Your task to perform on an android device: Open settings Image 0: 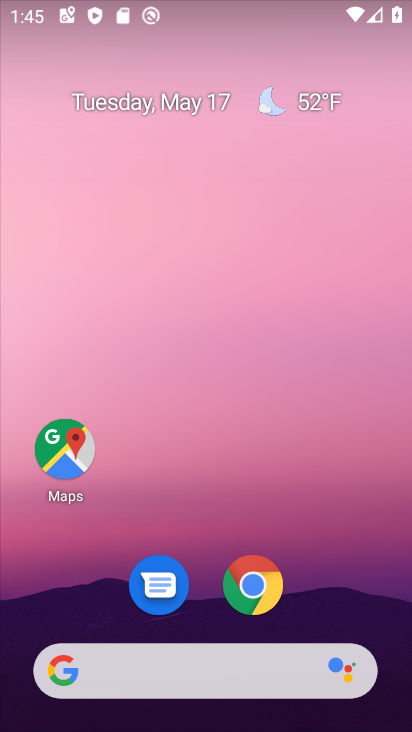
Step 0: drag from (286, 497) to (261, 51)
Your task to perform on an android device: Open settings Image 1: 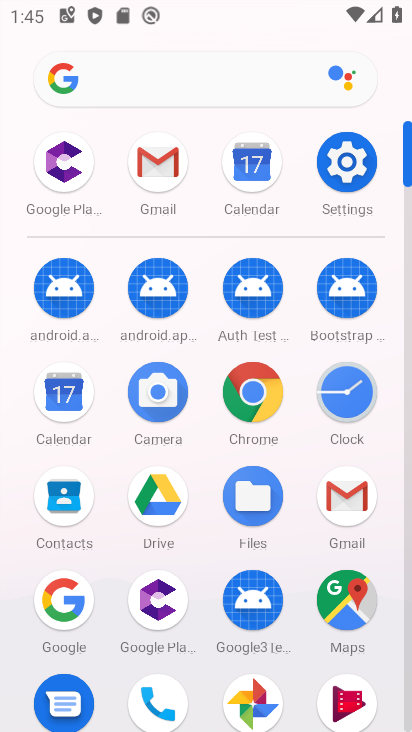
Step 1: click (335, 157)
Your task to perform on an android device: Open settings Image 2: 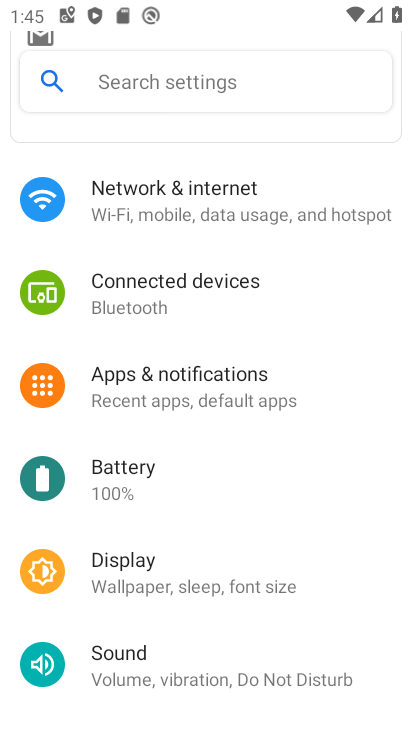
Step 2: task complete